Your task to perform on an android device: toggle sleep mode Image 0: 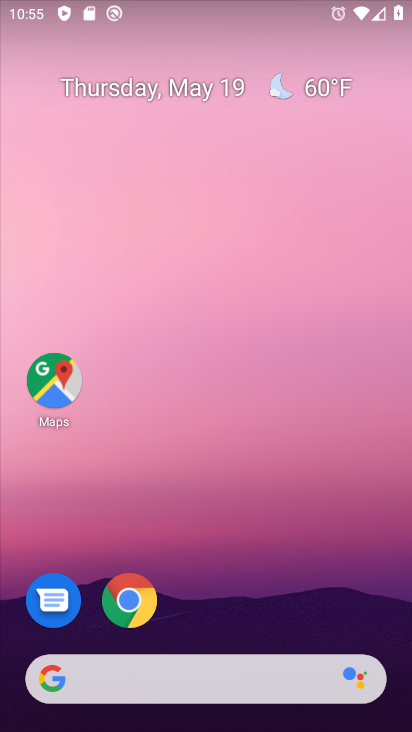
Step 0: drag from (386, 614) to (362, 243)
Your task to perform on an android device: toggle sleep mode Image 1: 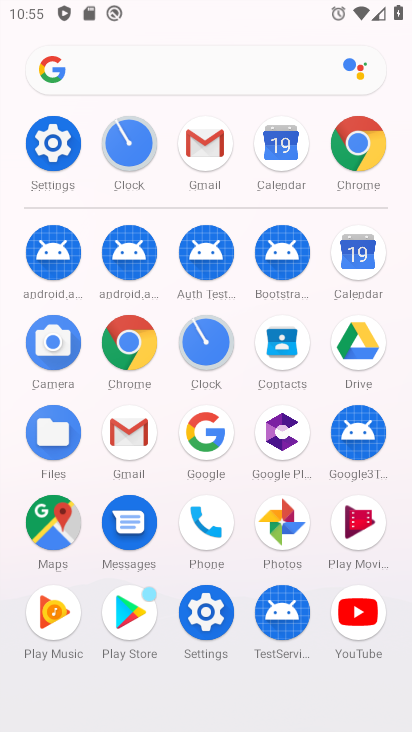
Step 1: click (211, 617)
Your task to perform on an android device: toggle sleep mode Image 2: 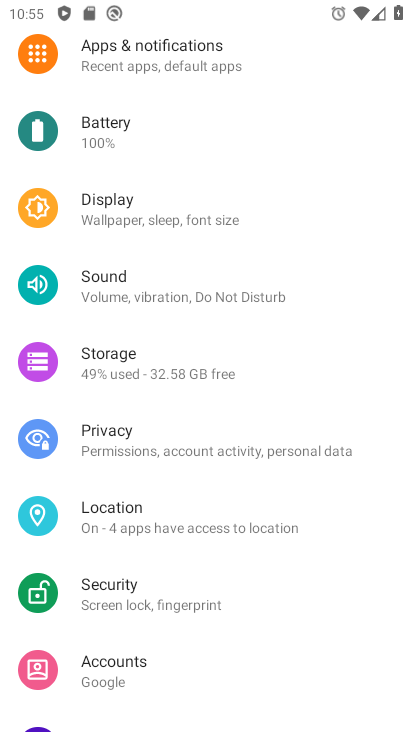
Step 2: drag from (354, 539) to (358, 356)
Your task to perform on an android device: toggle sleep mode Image 3: 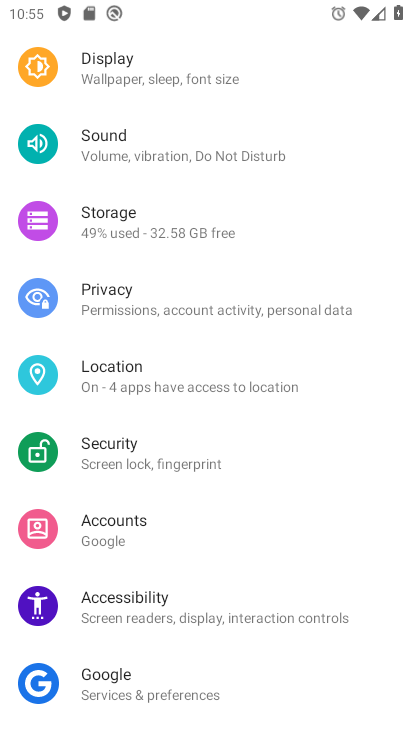
Step 3: drag from (349, 563) to (358, 414)
Your task to perform on an android device: toggle sleep mode Image 4: 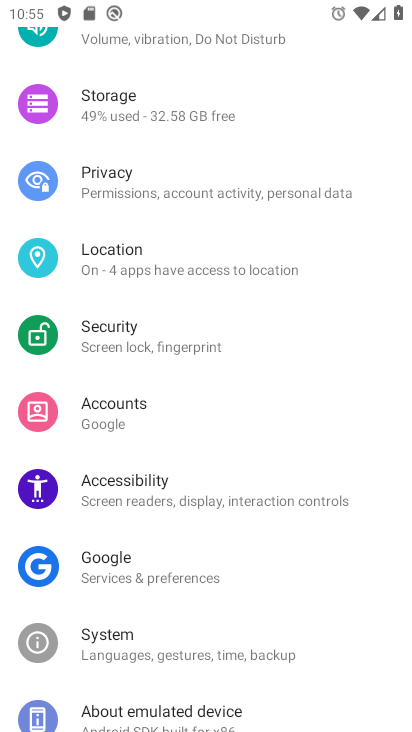
Step 4: drag from (363, 579) to (367, 381)
Your task to perform on an android device: toggle sleep mode Image 5: 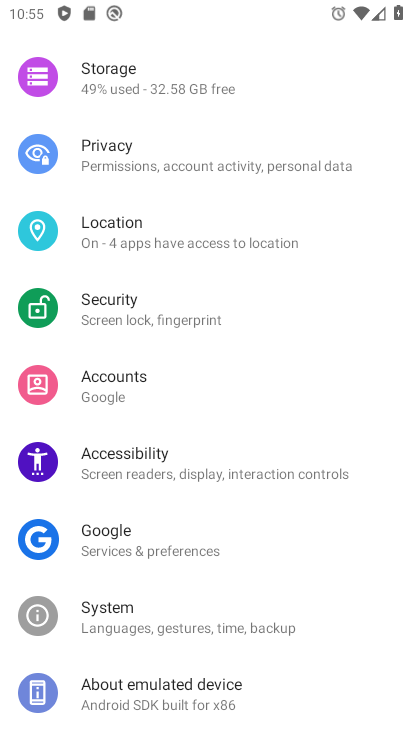
Step 5: drag from (344, 349) to (344, 456)
Your task to perform on an android device: toggle sleep mode Image 6: 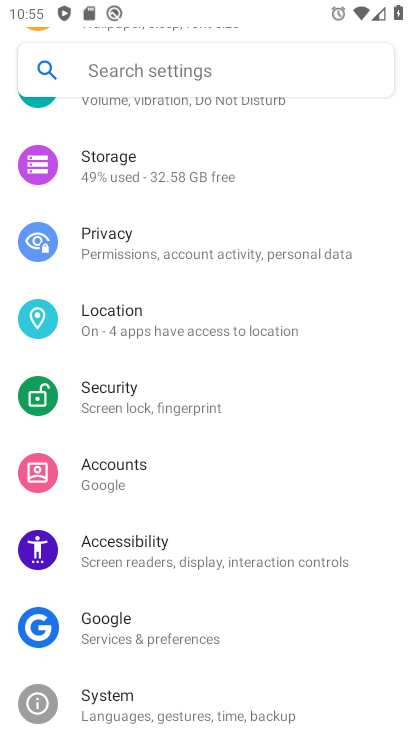
Step 6: drag from (329, 317) to (324, 413)
Your task to perform on an android device: toggle sleep mode Image 7: 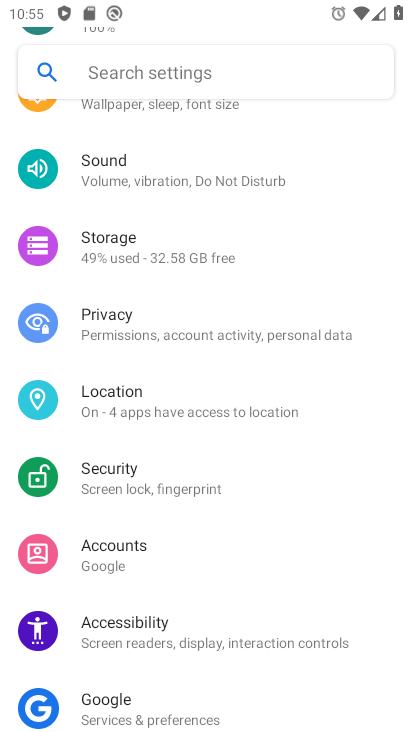
Step 7: drag from (349, 324) to (355, 448)
Your task to perform on an android device: toggle sleep mode Image 8: 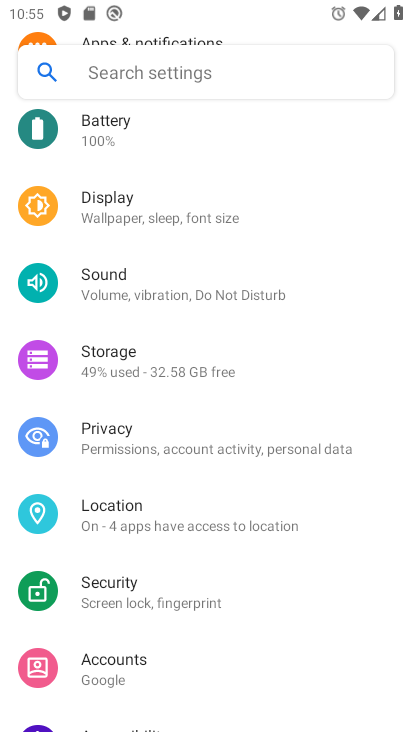
Step 8: drag from (360, 327) to (362, 372)
Your task to perform on an android device: toggle sleep mode Image 9: 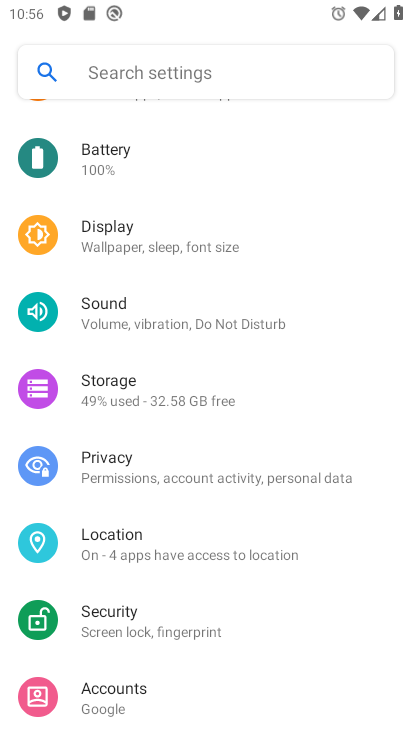
Step 9: drag from (389, 324) to (390, 389)
Your task to perform on an android device: toggle sleep mode Image 10: 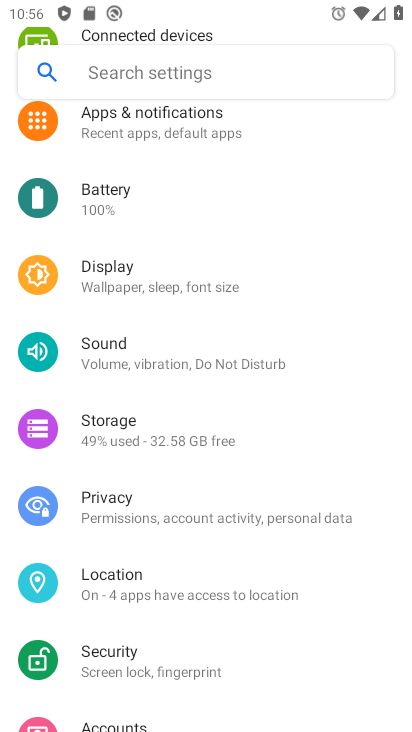
Step 10: drag from (403, 362) to (406, 407)
Your task to perform on an android device: toggle sleep mode Image 11: 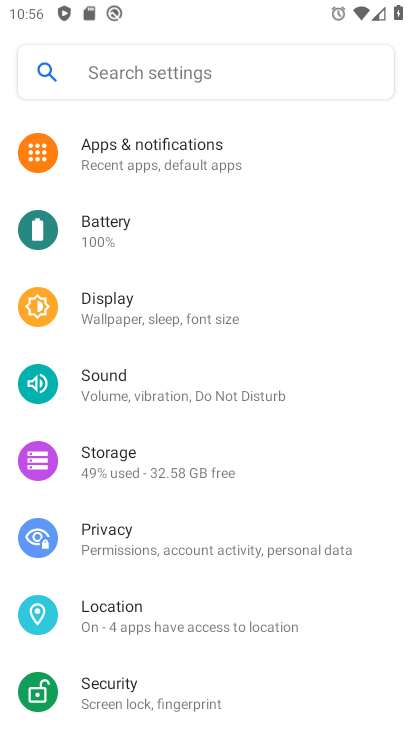
Step 11: drag from (407, 501) to (329, 314)
Your task to perform on an android device: toggle sleep mode Image 12: 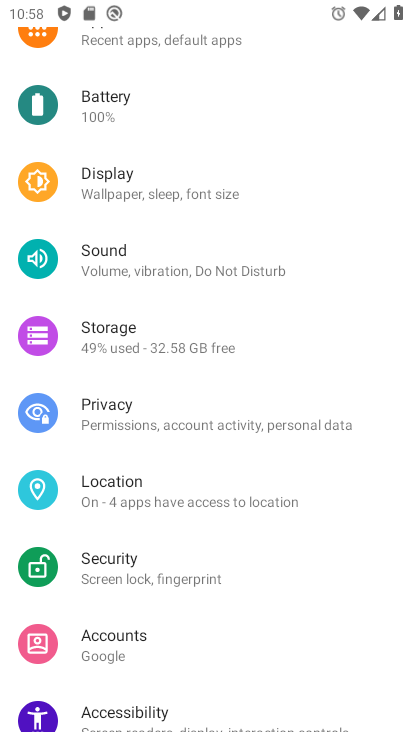
Step 12: drag from (339, 501) to (343, 333)
Your task to perform on an android device: toggle sleep mode Image 13: 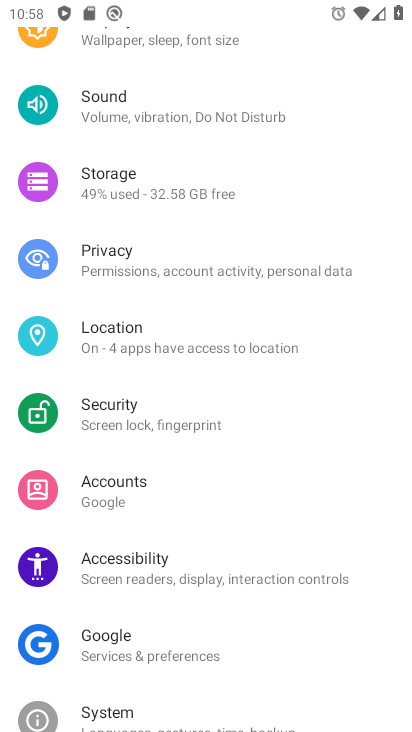
Step 13: drag from (351, 490) to (355, 337)
Your task to perform on an android device: toggle sleep mode Image 14: 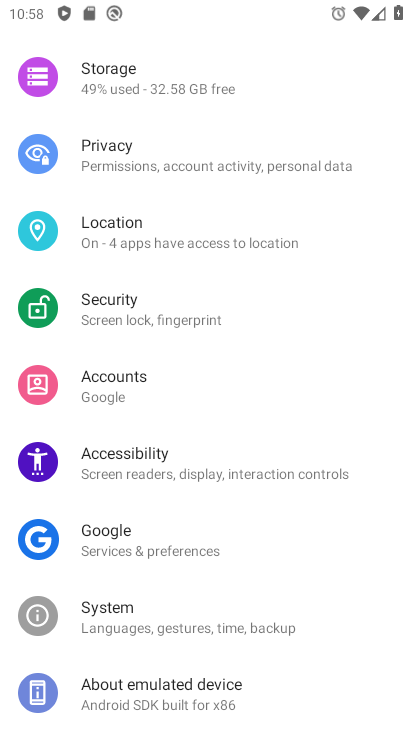
Step 14: drag from (372, 549) to (361, 308)
Your task to perform on an android device: toggle sleep mode Image 15: 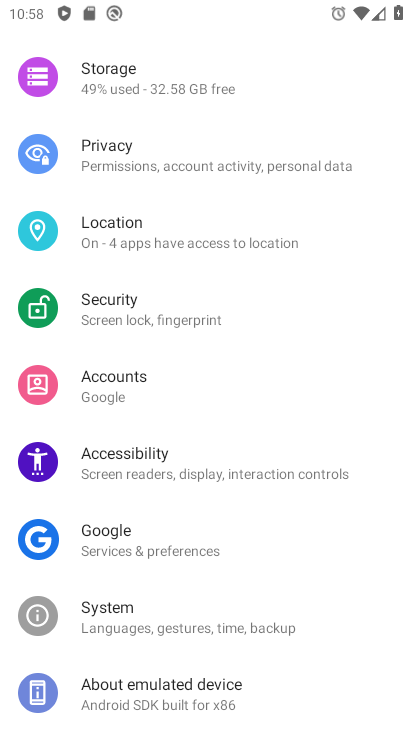
Step 15: drag from (357, 260) to (357, 422)
Your task to perform on an android device: toggle sleep mode Image 16: 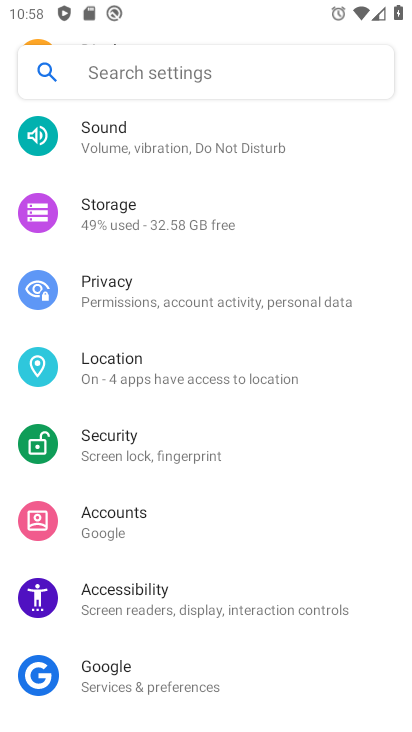
Step 16: drag from (352, 251) to (343, 380)
Your task to perform on an android device: toggle sleep mode Image 17: 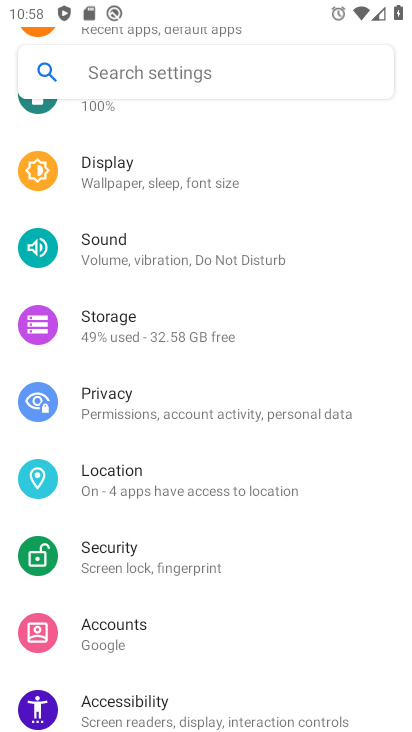
Step 17: drag from (331, 225) to (332, 377)
Your task to perform on an android device: toggle sleep mode Image 18: 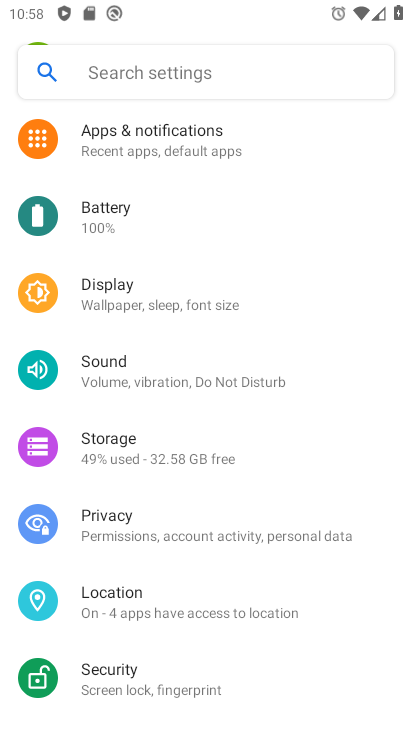
Step 18: drag from (332, 237) to (337, 406)
Your task to perform on an android device: toggle sleep mode Image 19: 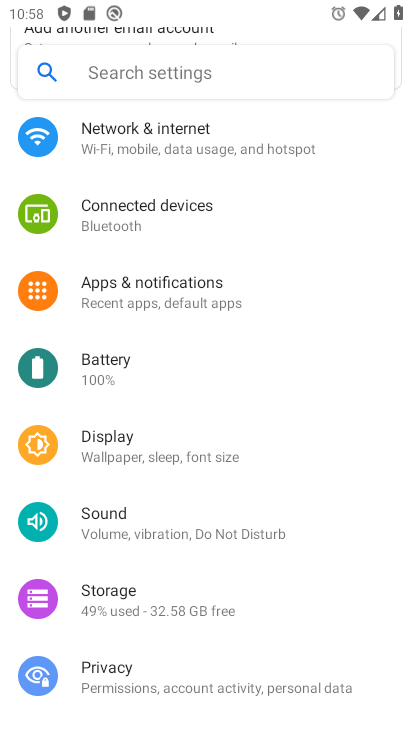
Step 19: drag from (320, 333) to (324, 420)
Your task to perform on an android device: toggle sleep mode Image 20: 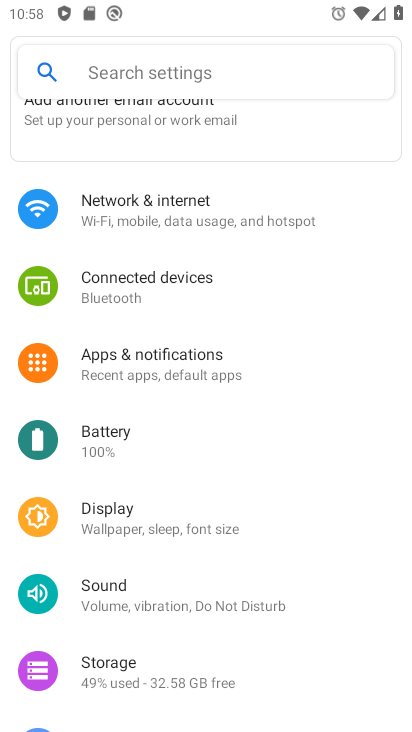
Step 20: drag from (318, 517) to (305, 417)
Your task to perform on an android device: toggle sleep mode Image 21: 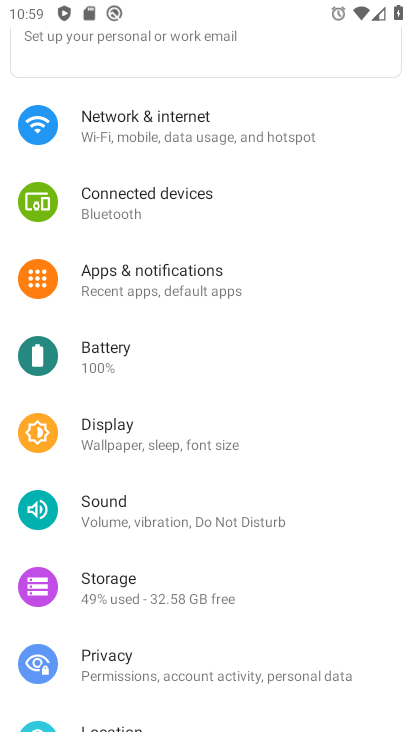
Step 21: drag from (302, 485) to (305, 429)
Your task to perform on an android device: toggle sleep mode Image 22: 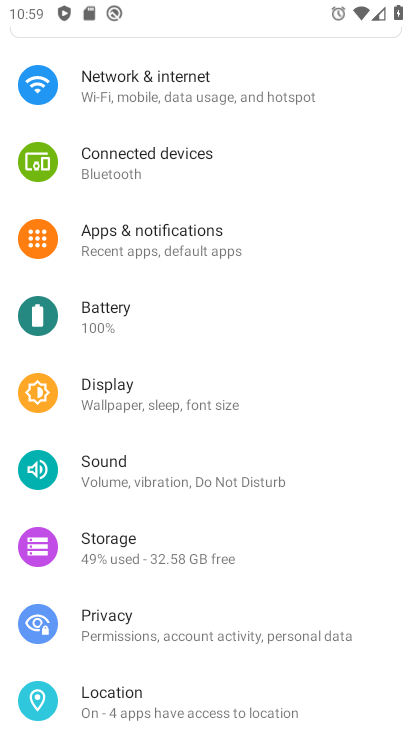
Step 22: click (305, 429)
Your task to perform on an android device: toggle sleep mode Image 23: 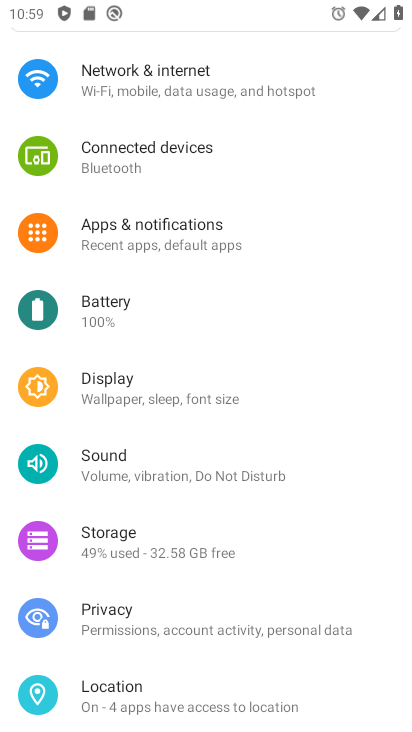
Step 23: drag from (337, 482) to (332, 426)
Your task to perform on an android device: toggle sleep mode Image 24: 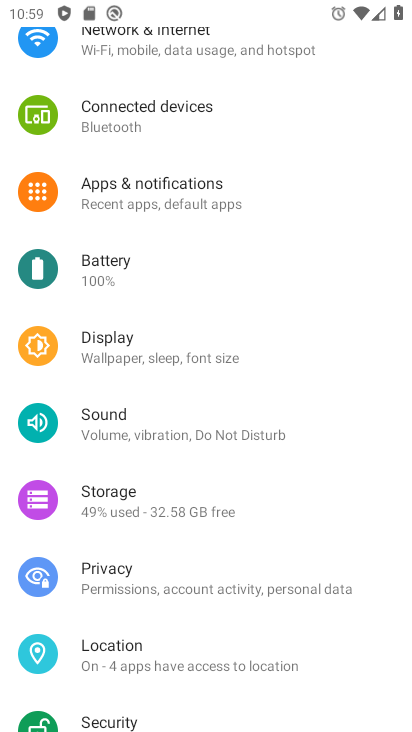
Step 24: click (190, 340)
Your task to perform on an android device: toggle sleep mode Image 25: 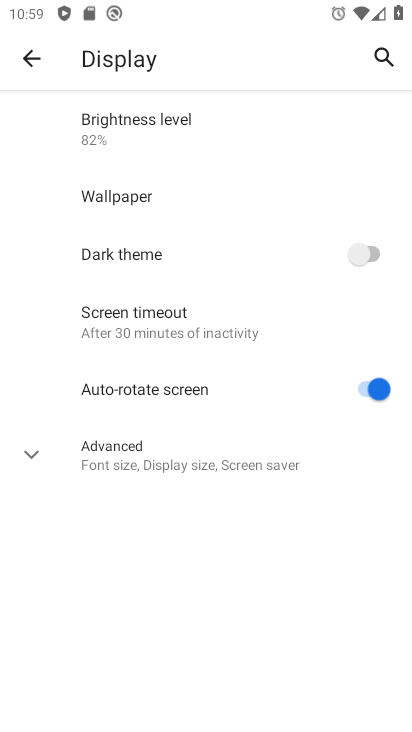
Step 25: click (225, 471)
Your task to perform on an android device: toggle sleep mode Image 26: 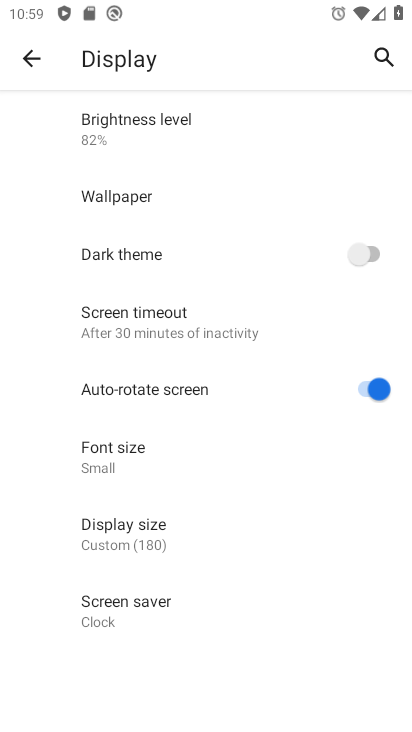
Step 26: task complete